Your task to perform on an android device: Add usb-b to the cart on walmart, then select checkout. Image 0: 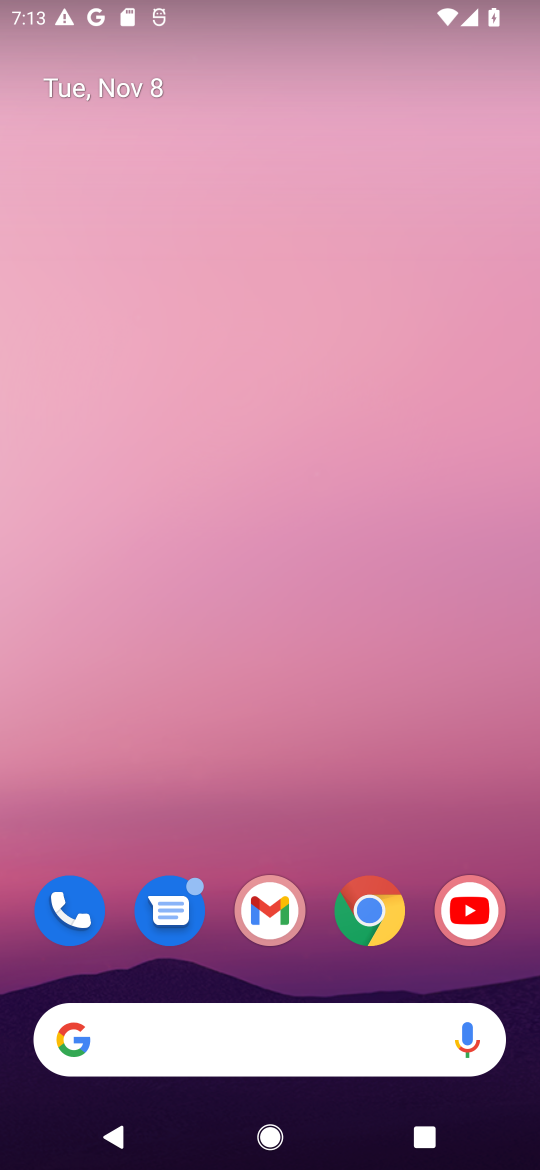
Step 0: click (387, 914)
Your task to perform on an android device: Add usb-b to the cart on walmart, then select checkout. Image 1: 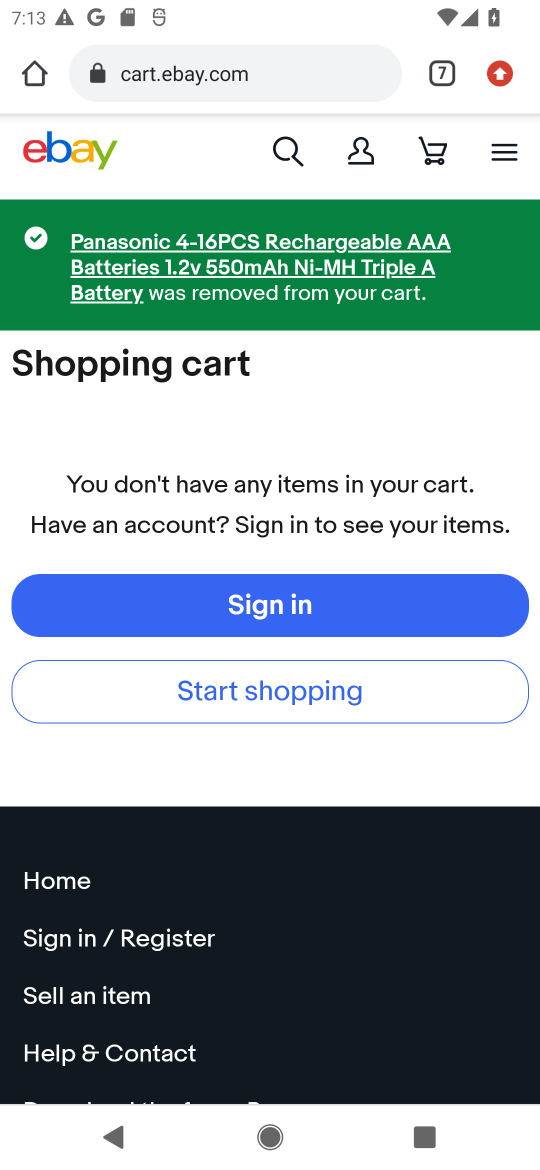
Step 1: click (449, 72)
Your task to perform on an android device: Add usb-b to the cart on walmart, then select checkout. Image 2: 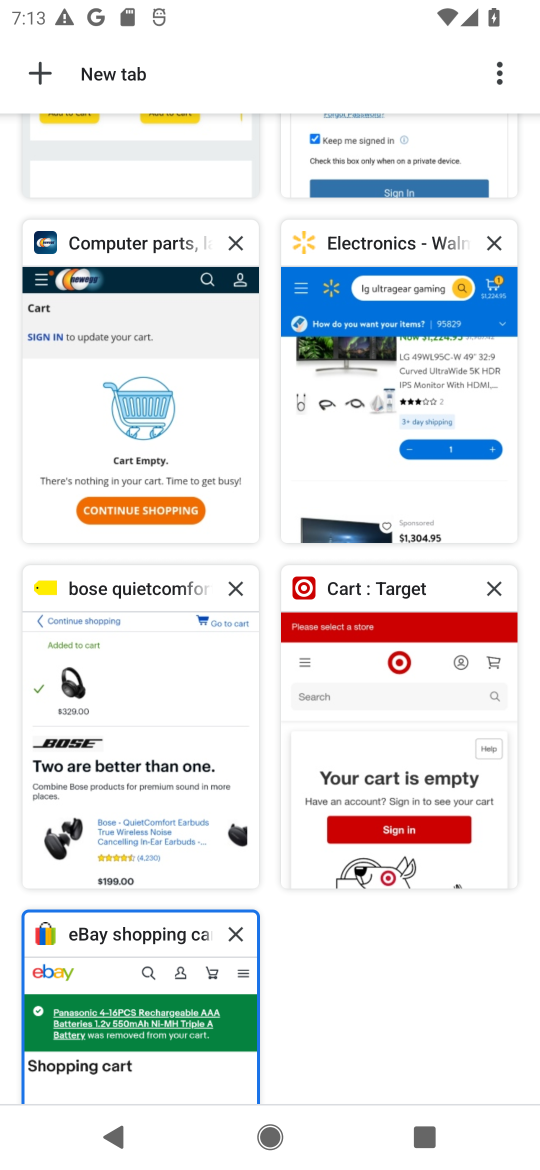
Step 2: click (365, 286)
Your task to perform on an android device: Add usb-b to the cart on walmart, then select checkout. Image 3: 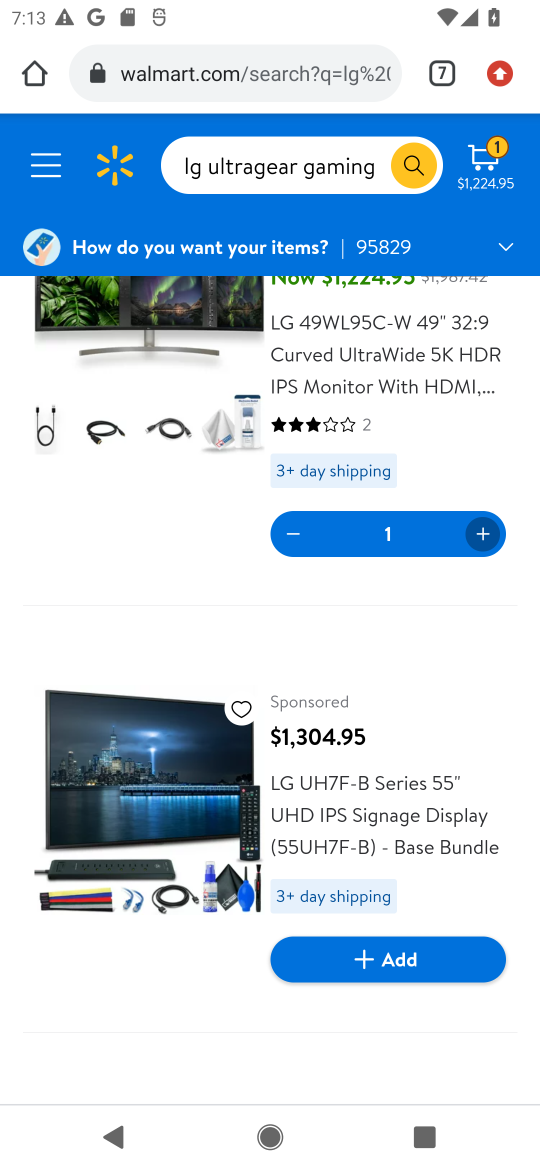
Step 3: click (320, 158)
Your task to perform on an android device: Add usb-b to the cart on walmart, then select checkout. Image 4: 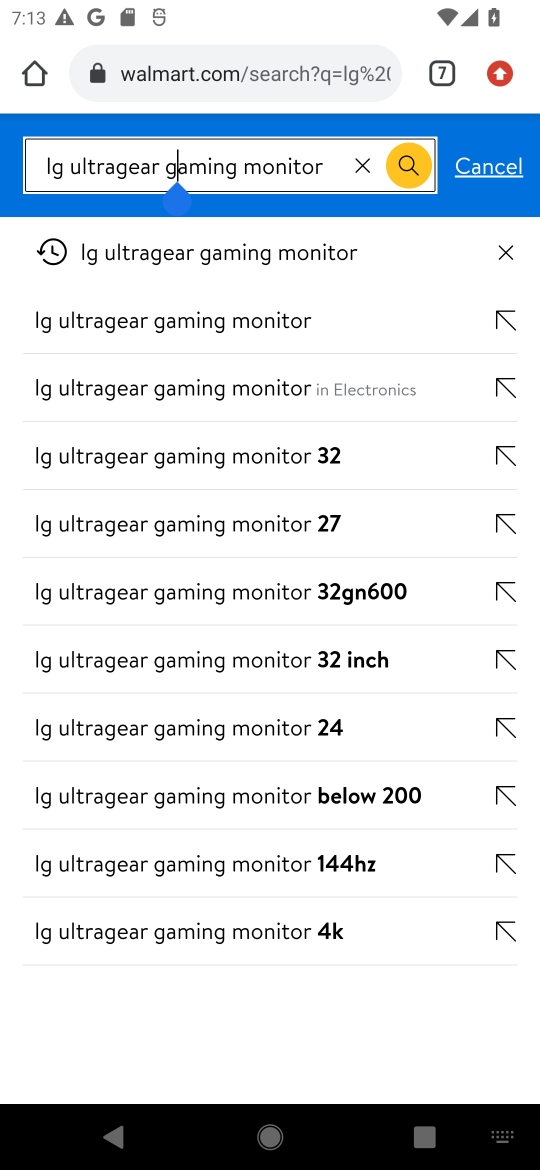
Step 4: click (362, 163)
Your task to perform on an android device: Add usb-b to the cart on walmart, then select checkout. Image 5: 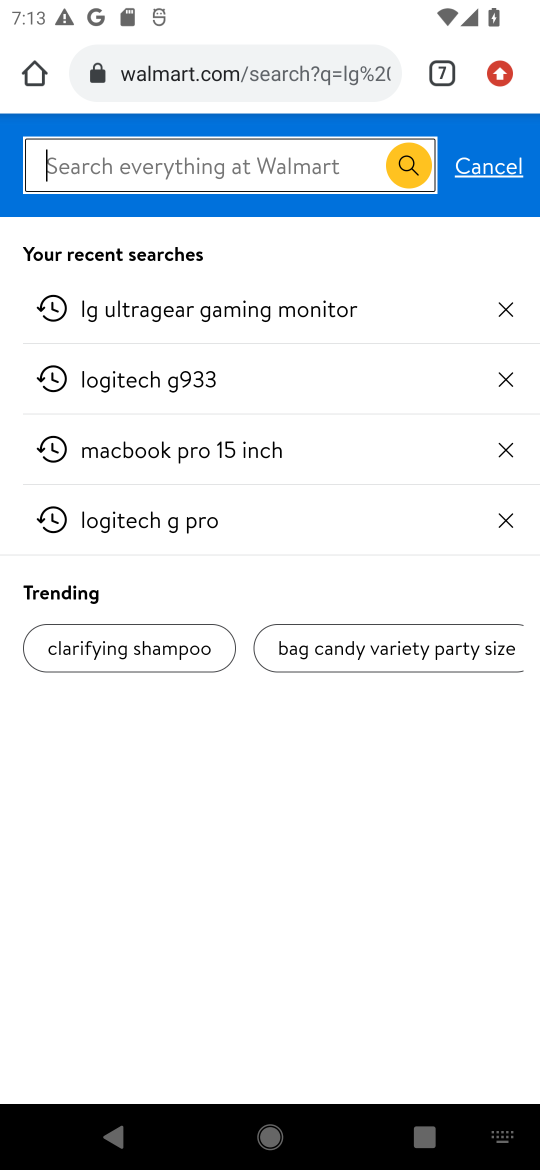
Step 5: type "usb-b"
Your task to perform on an android device: Add usb-b to the cart on walmart, then select checkout. Image 6: 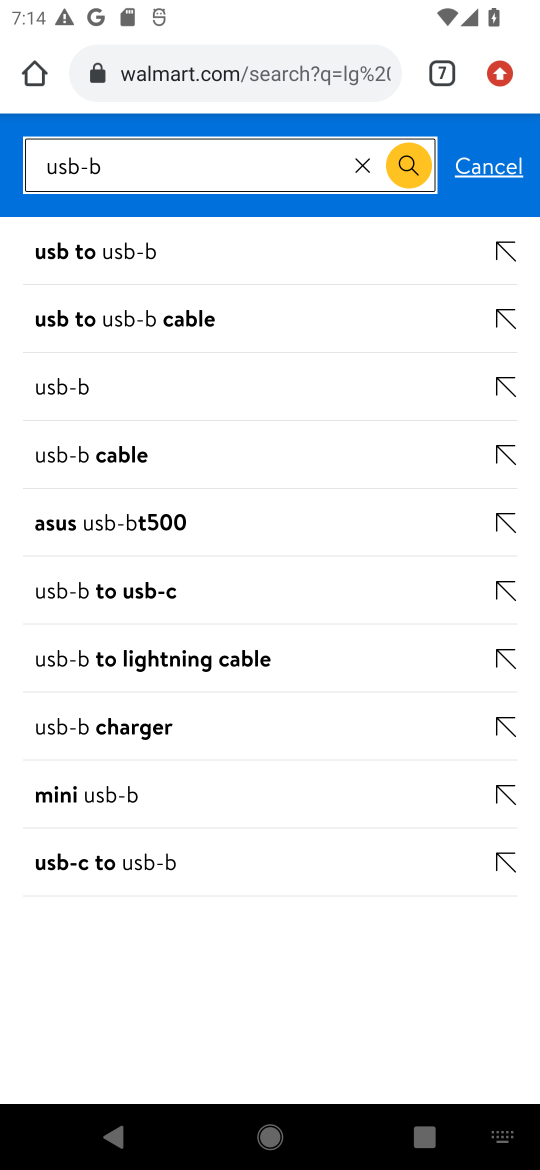
Step 6: click (69, 392)
Your task to perform on an android device: Add usb-b to the cart on walmart, then select checkout. Image 7: 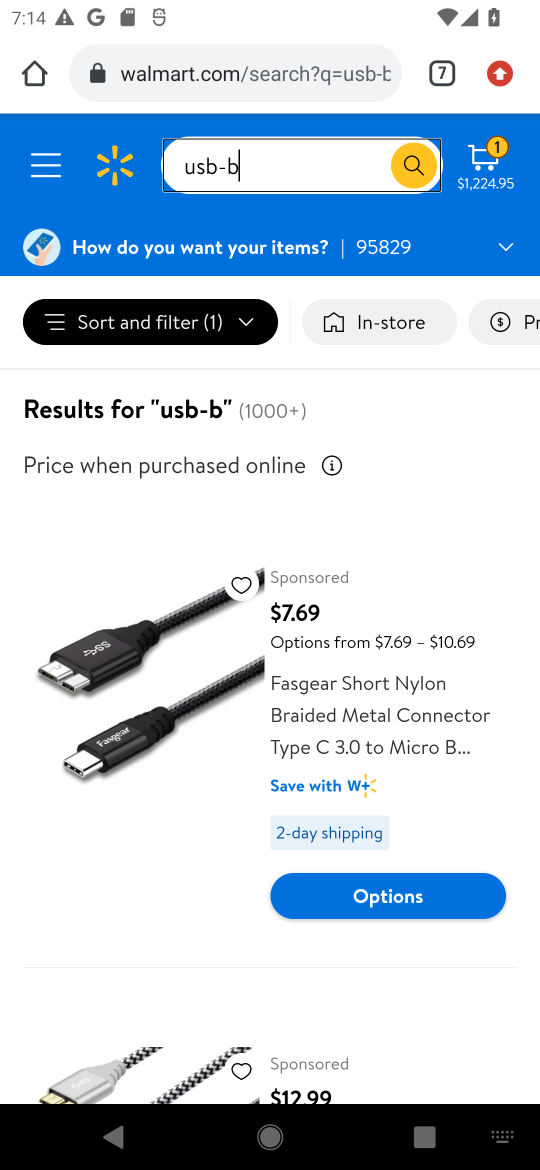
Step 7: click (330, 704)
Your task to perform on an android device: Add usb-b to the cart on walmart, then select checkout. Image 8: 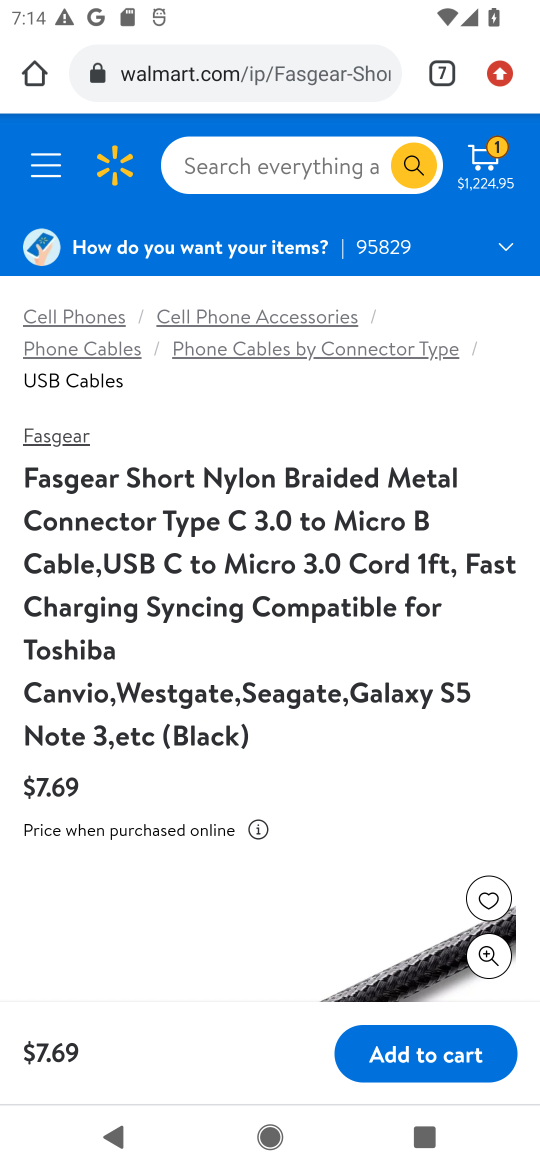
Step 8: click (446, 1059)
Your task to perform on an android device: Add usb-b to the cart on walmart, then select checkout. Image 9: 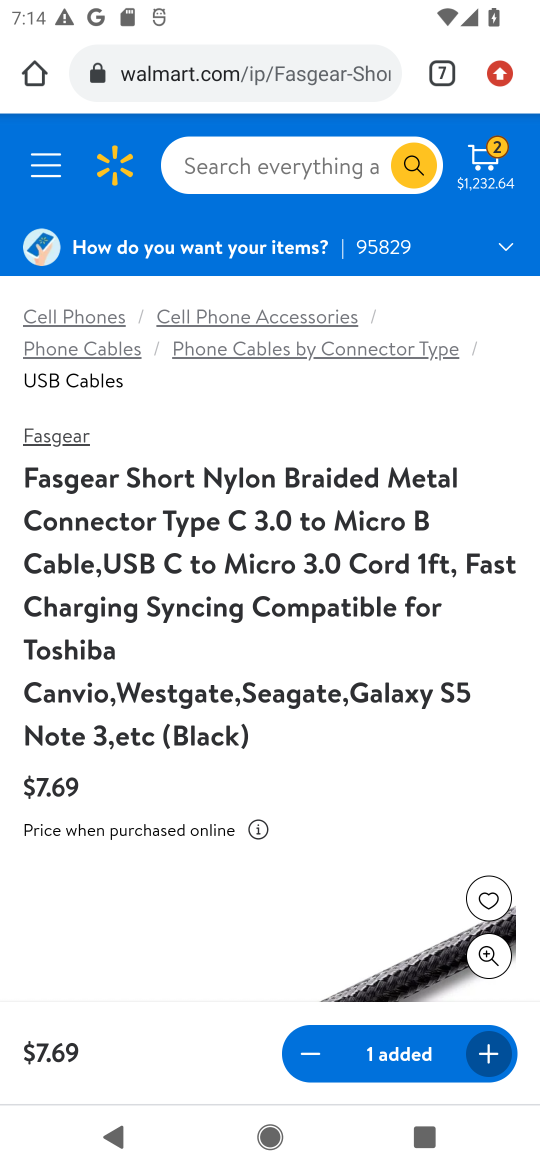
Step 9: click (498, 187)
Your task to perform on an android device: Add usb-b to the cart on walmart, then select checkout. Image 10: 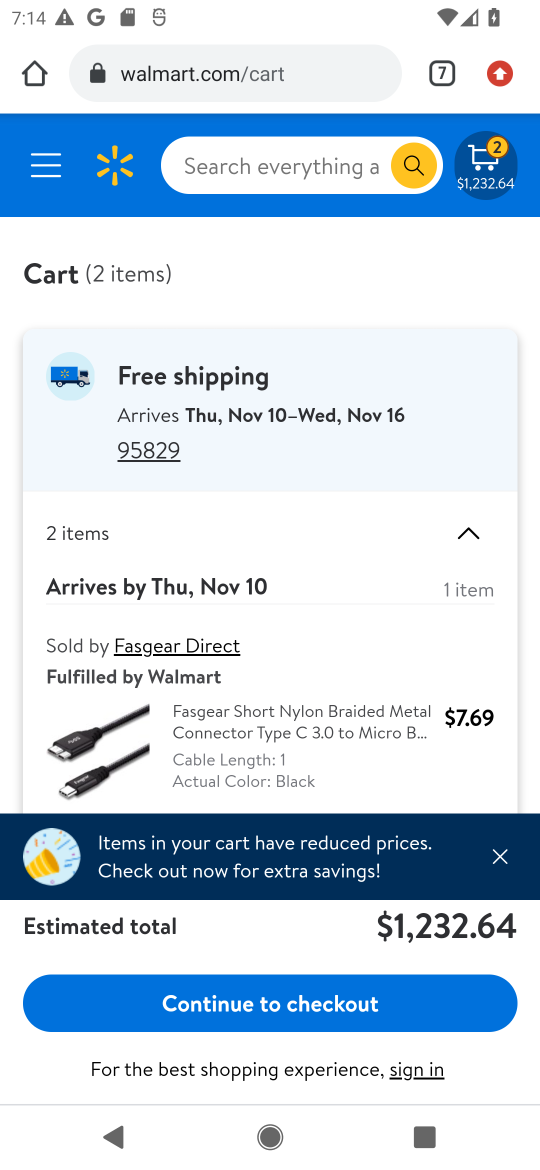
Step 10: click (248, 994)
Your task to perform on an android device: Add usb-b to the cart on walmart, then select checkout. Image 11: 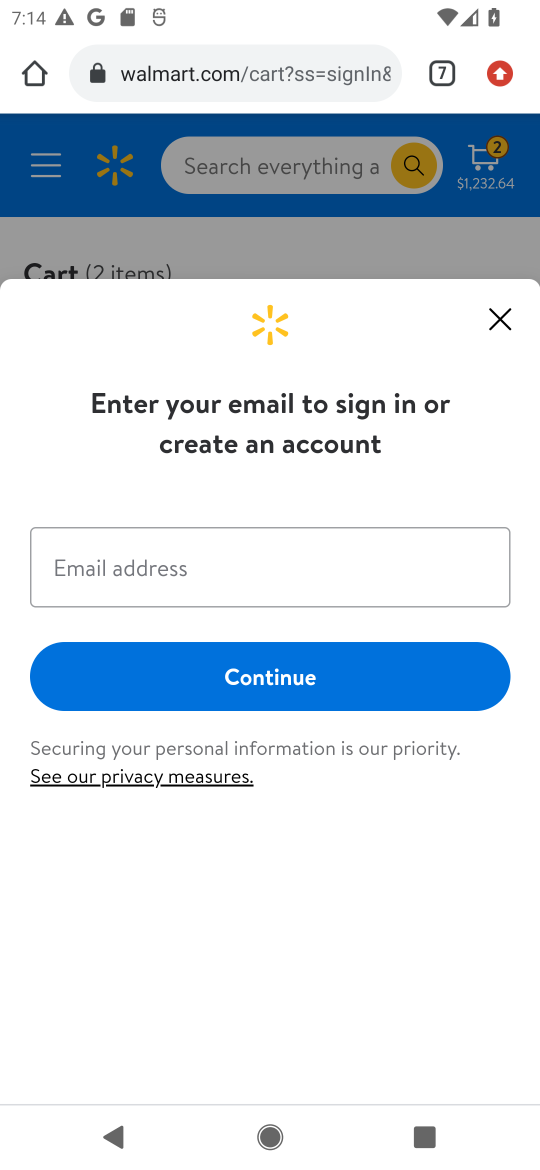
Step 11: task complete